Your task to perform on an android device: open wifi settings Image 0: 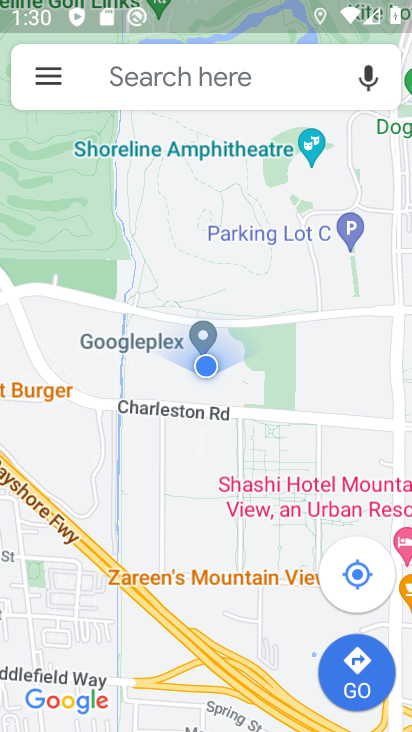
Step 0: press home button
Your task to perform on an android device: open wifi settings Image 1: 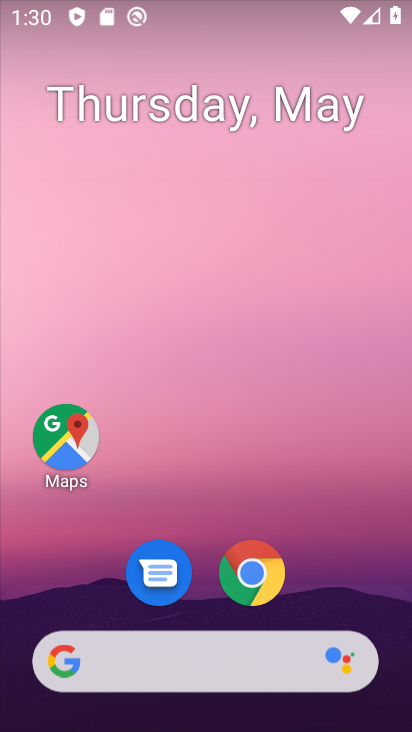
Step 1: drag from (353, 603) to (259, 145)
Your task to perform on an android device: open wifi settings Image 2: 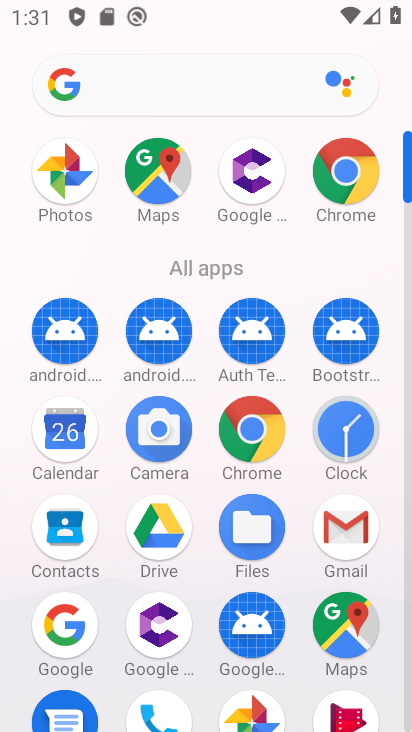
Step 2: click (408, 687)
Your task to perform on an android device: open wifi settings Image 3: 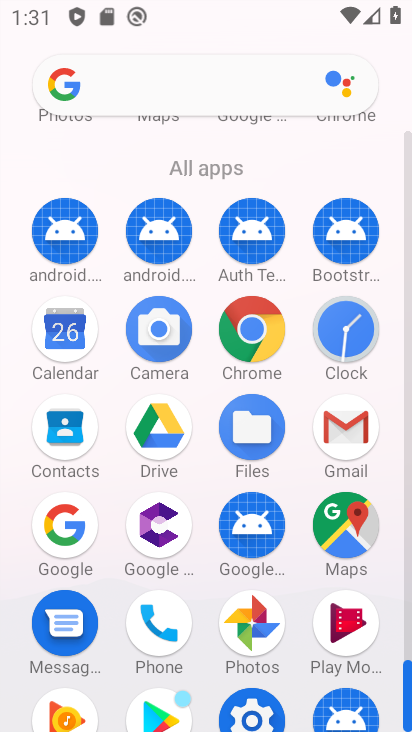
Step 3: click (254, 714)
Your task to perform on an android device: open wifi settings Image 4: 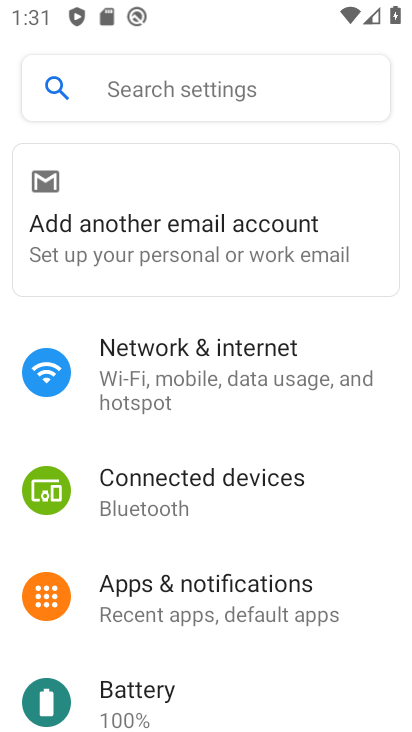
Step 4: click (189, 356)
Your task to perform on an android device: open wifi settings Image 5: 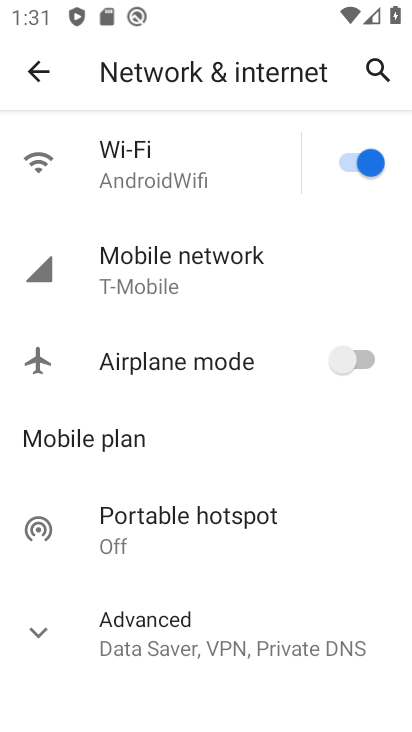
Step 5: click (150, 148)
Your task to perform on an android device: open wifi settings Image 6: 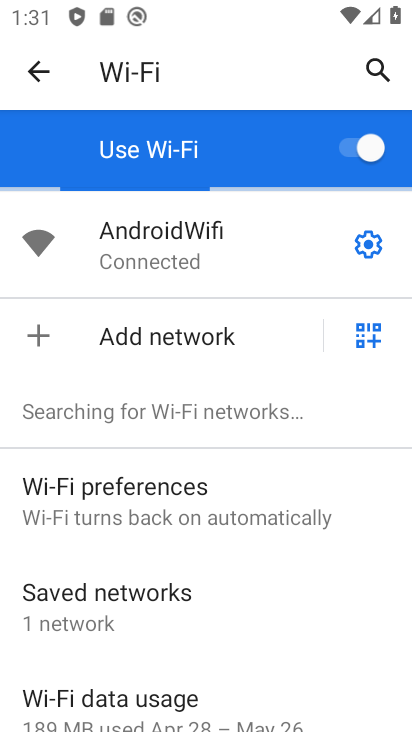
Step 6: task complete